Your task to perform on an android device: allow notifications from all sites in the chrome app Image 0: 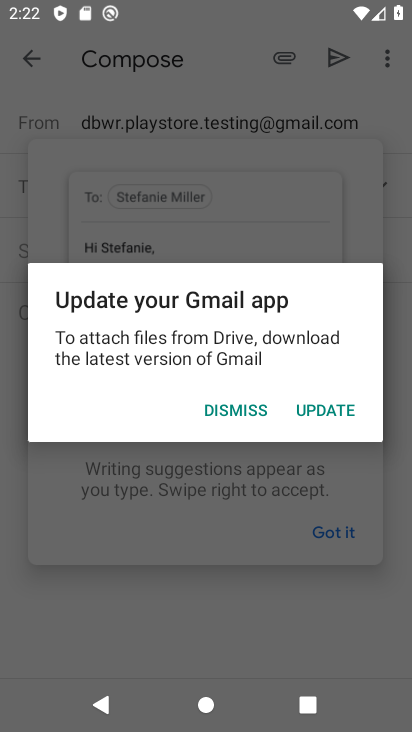
Step 0: press home button
Your task to perform on an android device: allow notifications from all sites in the chrome app Image 1: 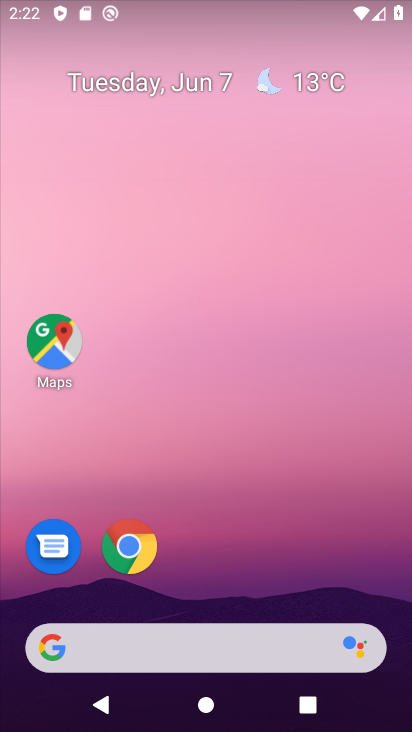
Step 1: drag from (369, 529) to (377, 95)
Your task to perform on an android device: allow notifications from all sites in the chrome app Image 2: 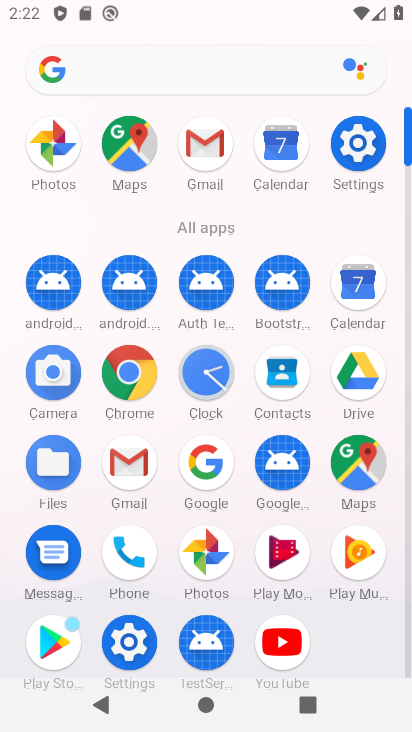
Step 2: click (121, 384)
Your task to perform on an android device: allow notifications from all sites in the chrome app Image 3: 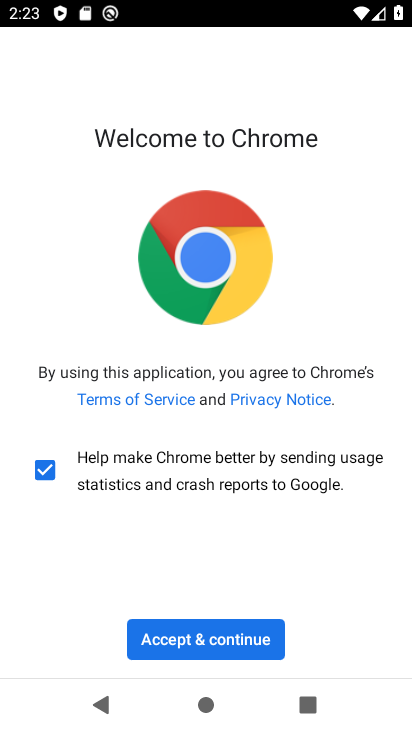
Step 3: click (244, 651)
Your task to perform on an android device: allow notifications from all sites in the chrome app Image 4: 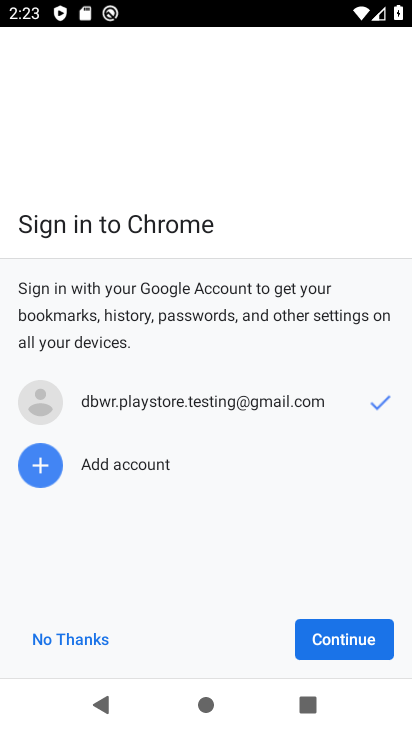
Step 4: click (354, 649)
Your task to perform on an android device: allow notifications from all sites in the chrome app Image 5: 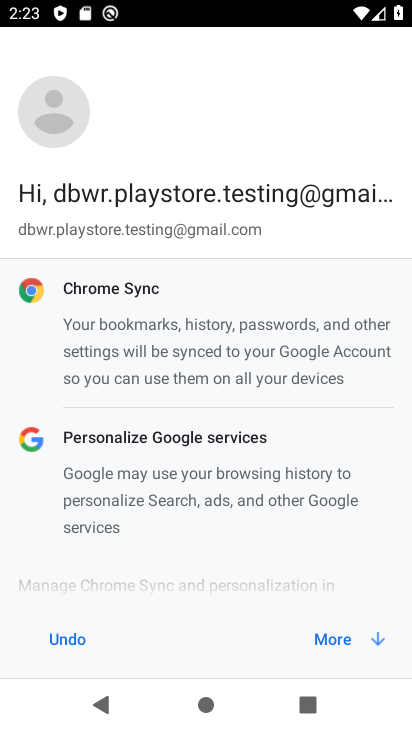
Step 5: click (343, 641)
Your task to perform on an android device: allow notifications from all sites in the chrome app Image 6: 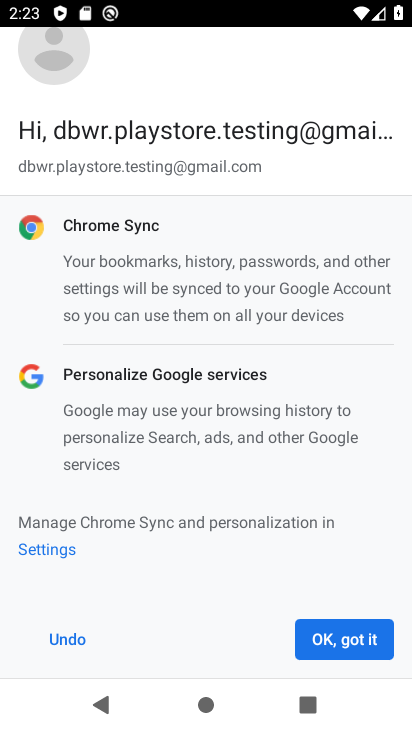
Step 6: click (368, 637)
Your task to perform on an android device: allow notifications from all sites in the chrome app Image 7: 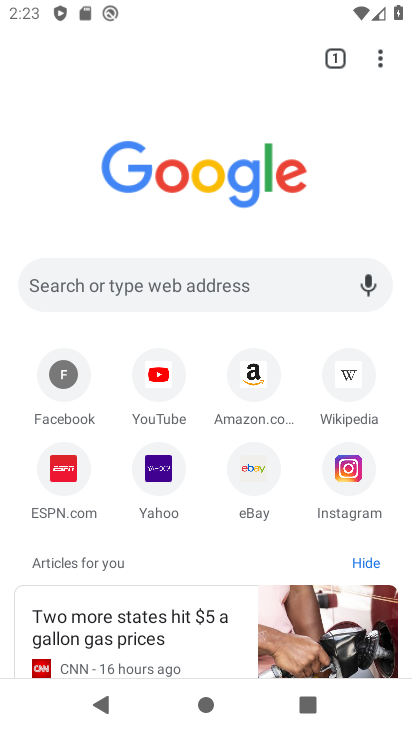
Step 7: click (381, 64)
Your task to perform on an android device: allow notifications from all sites in the chrome app Image 8: 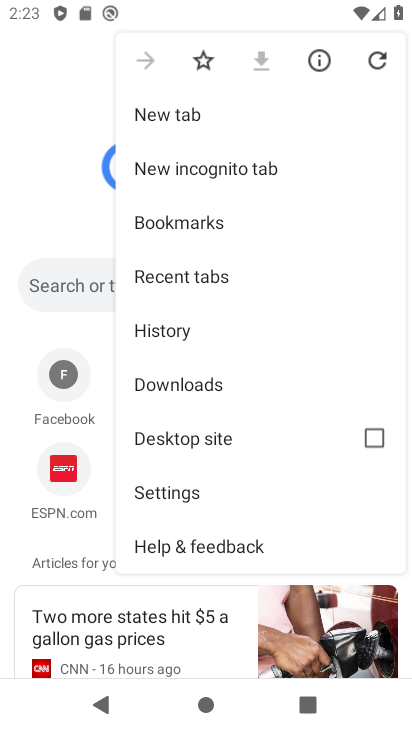
Step 8: drag from (301, 396) to (299, 267)
Your task to perform on an android device: allow notifications from all sites in the chrome app Image 9: 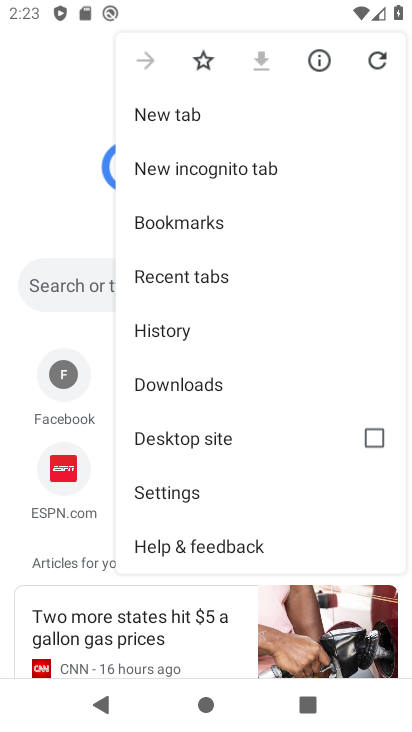
Step 9: click (180, 502)
Your task to perform on an android device: allow notifications from all sites in the chrome app Image 10: 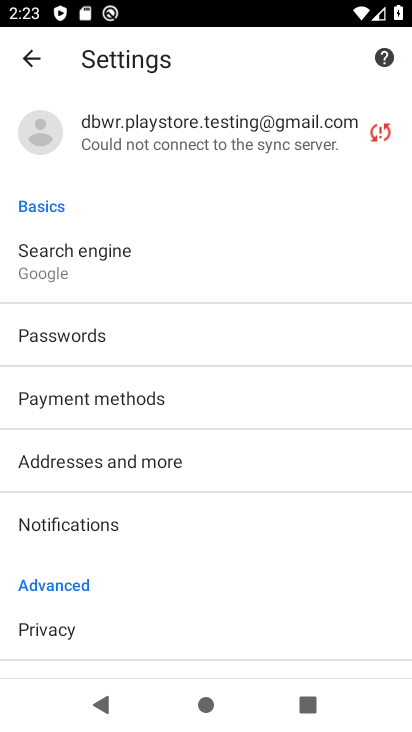
Step 10: drag from (252, 525) to (255, 422)
Your task to perform on an android device: allow notifications from all sites in the chrome app Image 11: 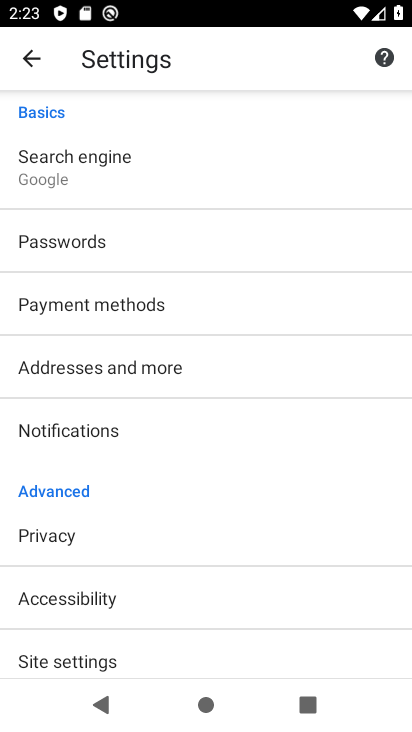
Step 11: drag from (271, 507) to (268, 413)
Your task to perform on an android device: allow notifications from all sites in the chrome app Image 12: 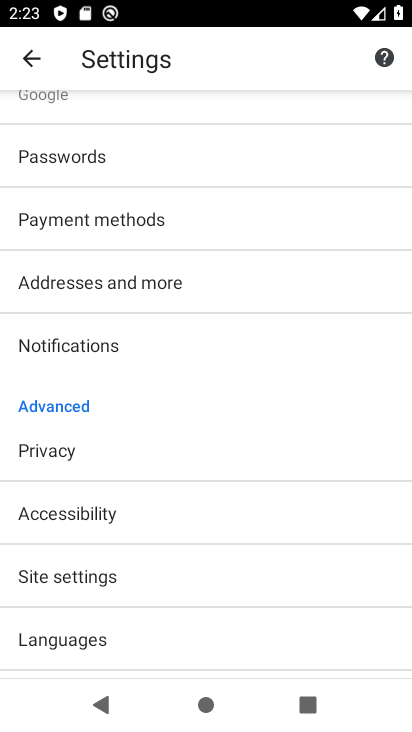
Step 12: drag from (281, 537) to (281, 422)
Your task to perform on an android device: allow notifications from all sites in the chrome app Image 13: 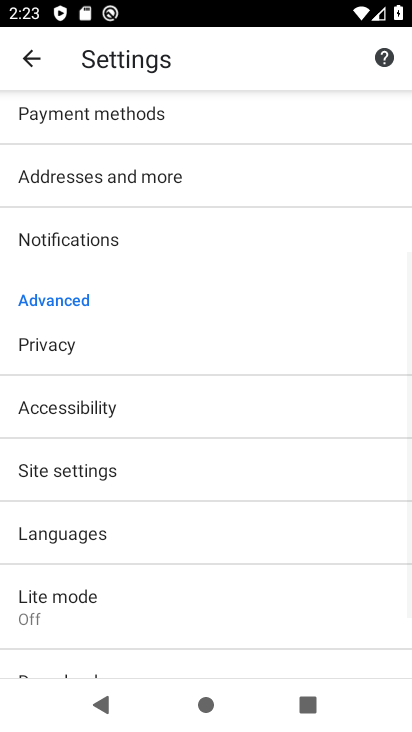
Step 13: drag from (291, 524) to (285, 375)
Your task to perform on an android device: allow notifications from all sites in the chrome app Image 14: 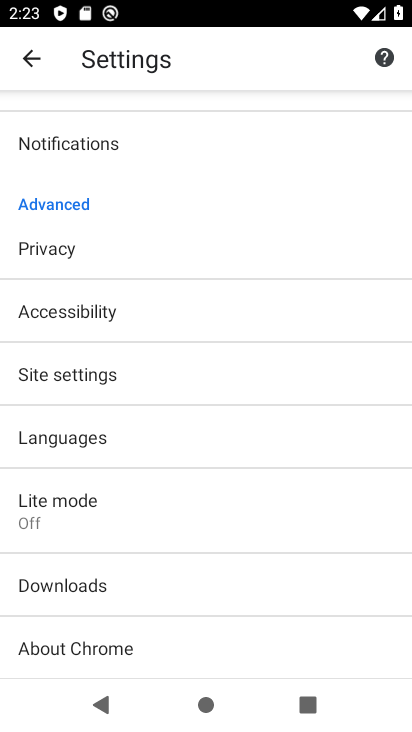
Step 14: drag from (271, 498) to (267, 412)
Your task to perform on an android device: allow notifications from all sites in the chrome app Image 15: 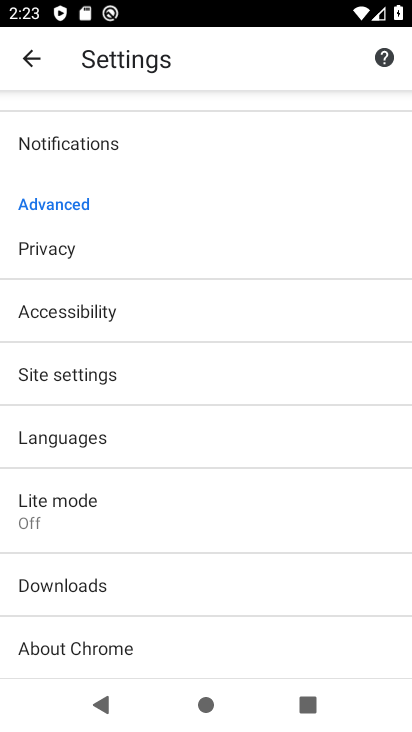
Step 15: click (185, 381)
Your task to perform on an android device: allow notifications from all sites in the chrome app Image 16: 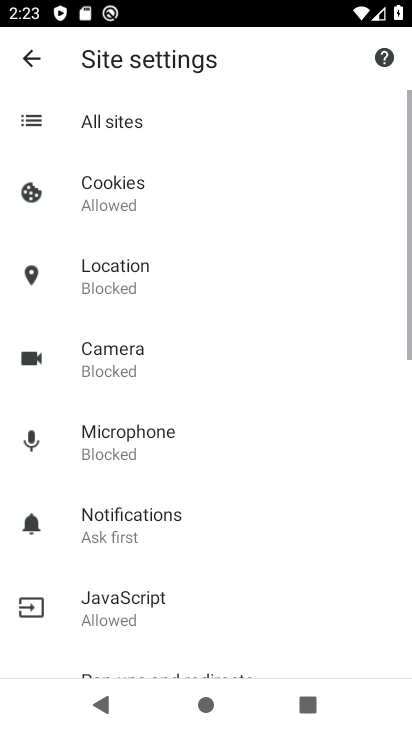
Step 16: drag from (242, 509) to (235, 437)
Your task to perform on an android device: allow notifications from all sites in the chrome app Image 17: 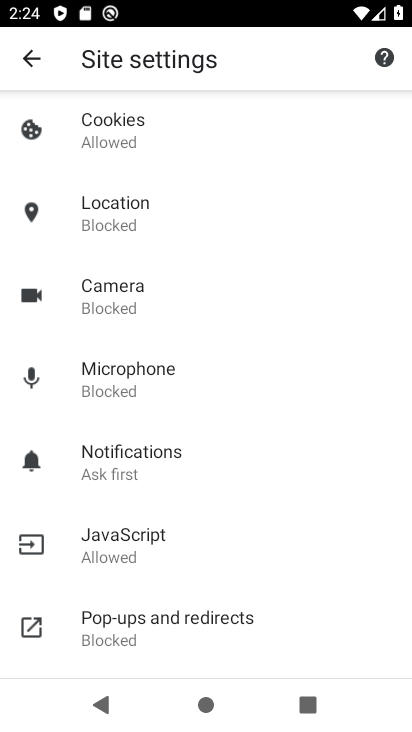
Step 17: drag from (251, 498) to (250, 396)
Your task to perform on an android device: allow notifications from all sites in the chrome app Image 18: 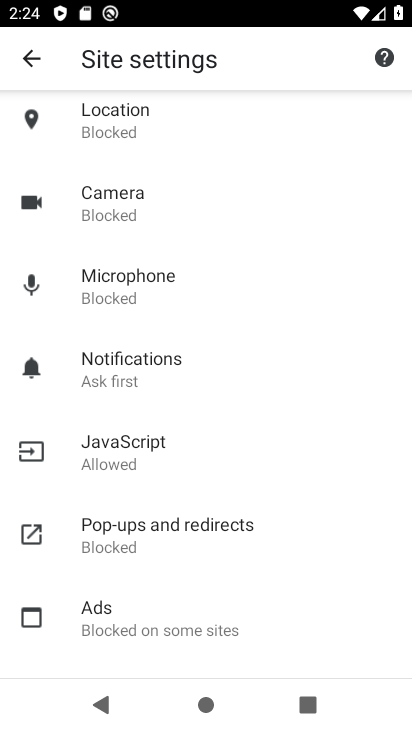
Step 18: drag from (287, 539) to (280, 356)
Your task to perform on an android device: allow notifications from all sites in the chrome app Image 19: 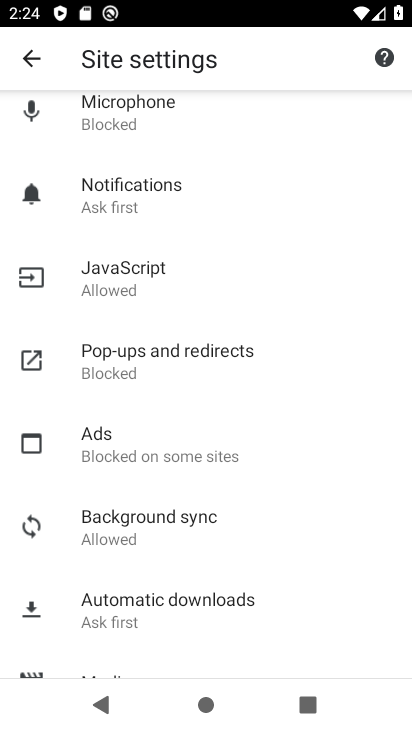
Step 19: click (102, 206)
Your task to perform on an android device: allow notifications from all sites in the chrome app Image 20: 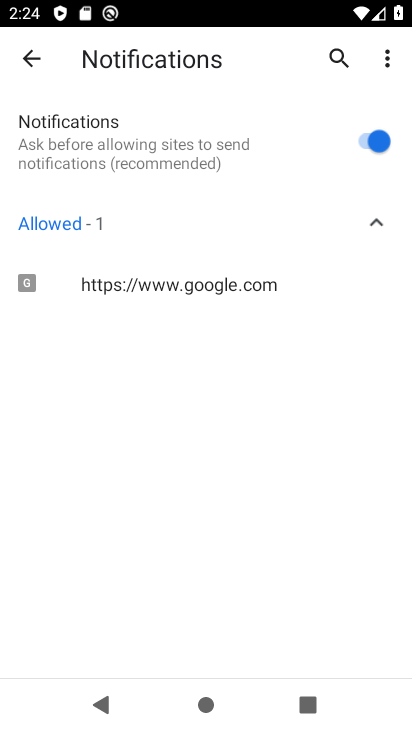
Step 20: task complete